Your task to perform on an android device: turn off improve location accuracy Image 0: 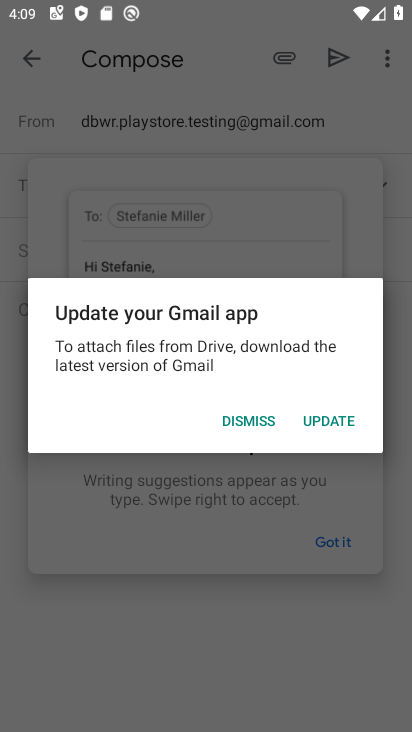
Step 0: press home button
Your task to perform on an android device: turn off improve location accuracy Image 1: 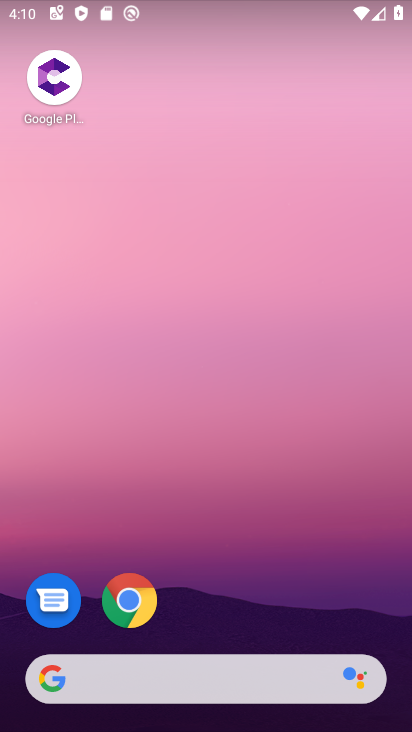
Step 1: drag from (382, 598) to (261, 22)
Your task to perform on an android device: turn off improve location accuracy Image 2: 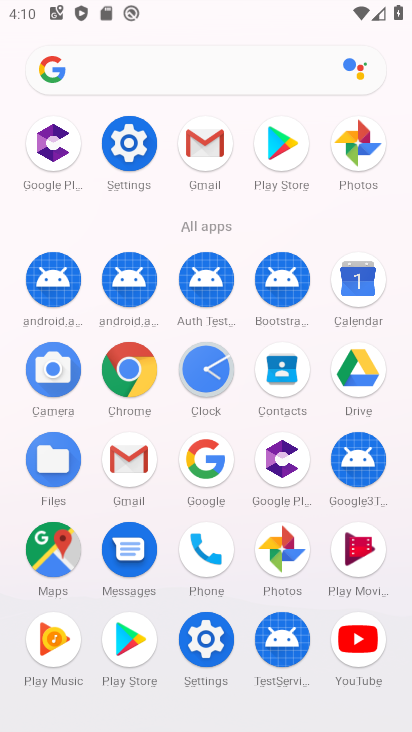
Step 2: click (207, 638)
Your task to perform on an android device: turn off improve location accuracy Image 3: 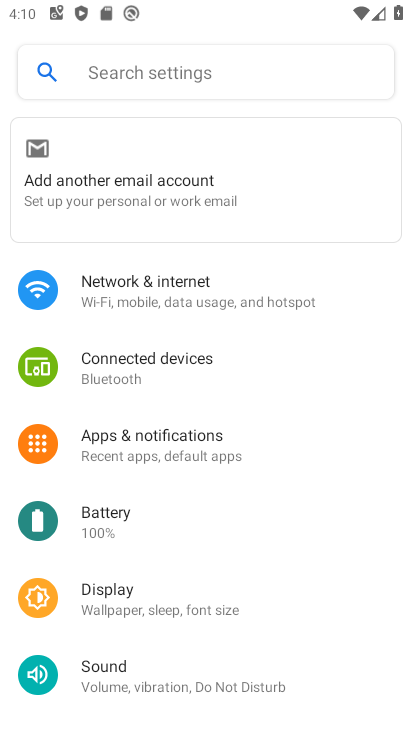
Step 3: drag from (270, 668) to (256, 264)
Your task to perform on an android device: turn off improve location accuracy Image 4: 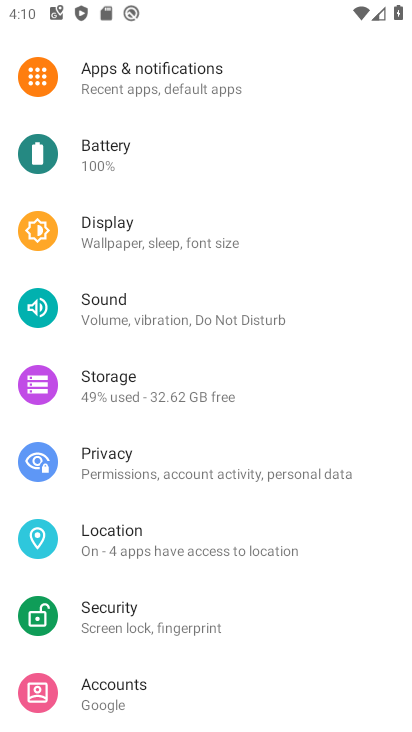
Step 4: drag from (225, 634) to (240, 343)
Your task to perform on an android device: turn off improve location accuracy Image 5: 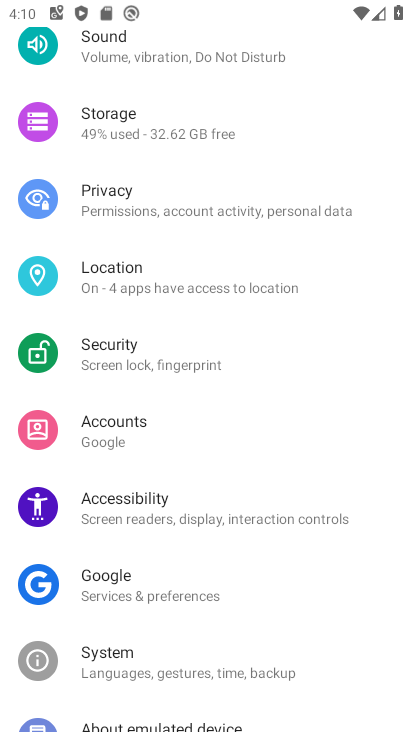
Step 5: click (116, 276)
Your task to perform on an android device: turn off improve location accuracy Image 6: 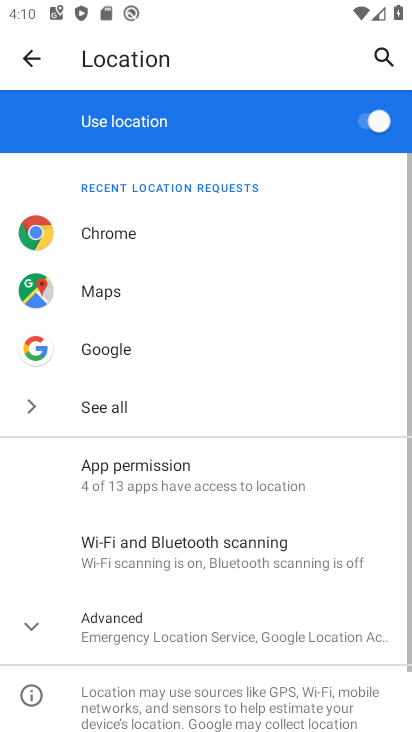
Step 6: click (165, 612)
Your task to perform on an android device: turn off improve location accuracy Image 7: 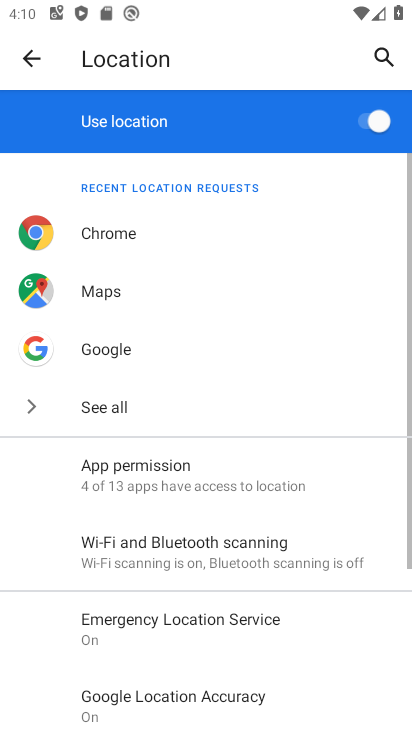
Step 7: drag from (302, 621) to (268, 259)
Your task to perform on an android device: turn off improve location accuracy Image 8: 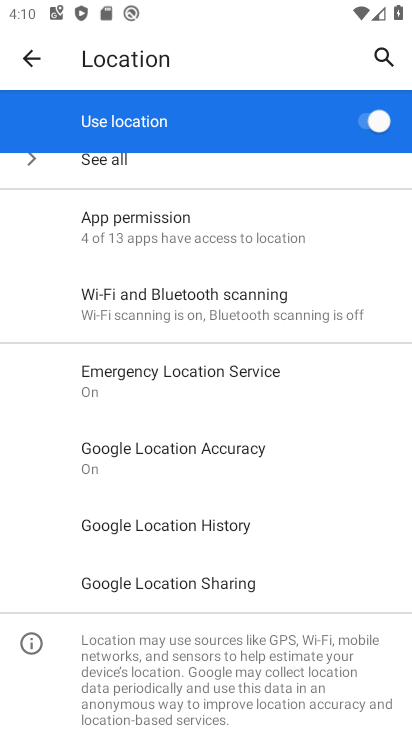
Step 8: click (171, 449)
Your task to perform on an android device: turn off improve location accuracy Image 9: 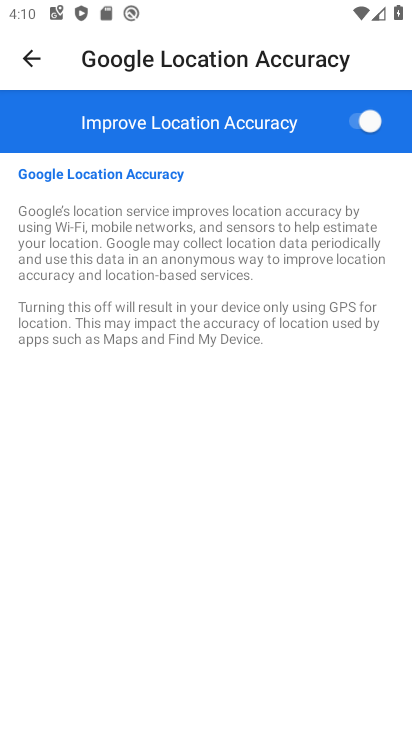
Step 9: click (357, 114)
Your task to perform on an android device: turn off improve location accuracy Image 10: 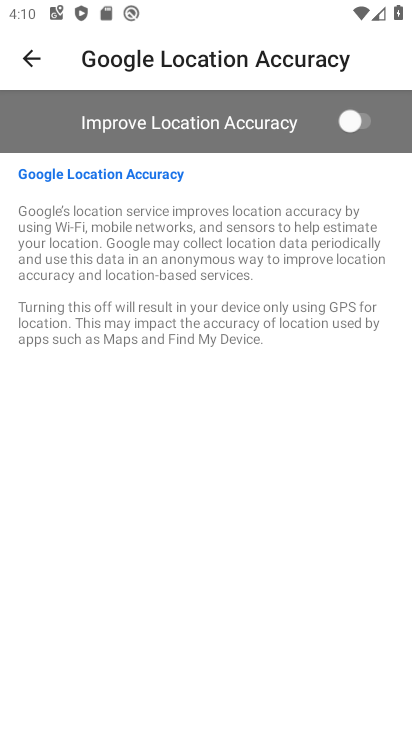
Step 10: task complete